Your task to perform on an android device: uninstall "Google News" Image 0: 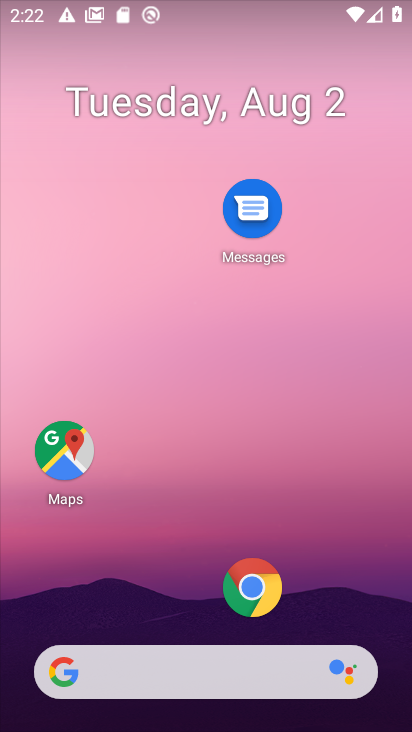
Step 0: drag from (189, 570) to (196, 188)
Your task to perform on an android device: uninstall "Google News" Image 1: 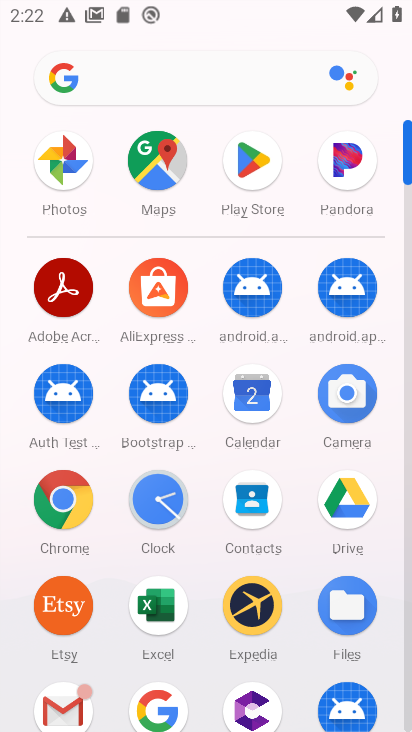
Step 1: click (244, 173)
Your task to perform on an android device: uninstall "Google News" Image 2: 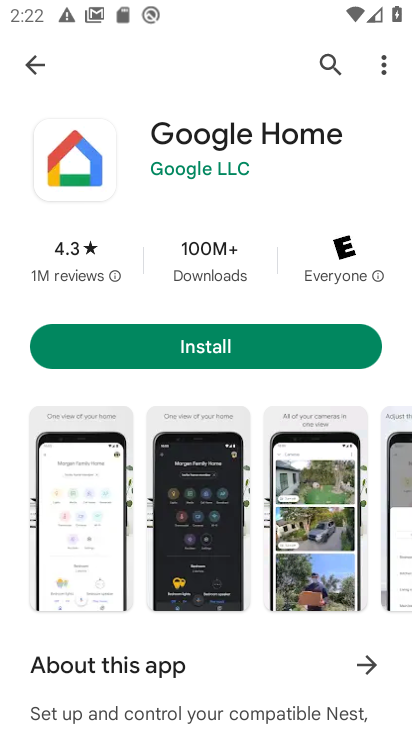
Step 2: click (334, 59)
Your task to perform on an android device: uninstall "Google News" Image 3: 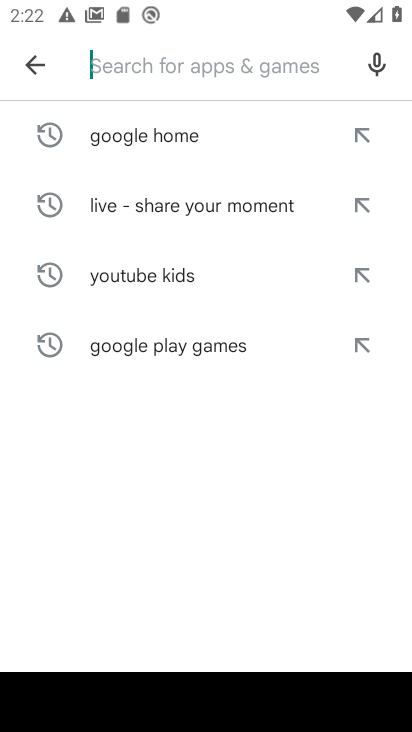
Step 3: type "Google News"
Your task to perform on an android device: uninstall "Google News" Image 4: 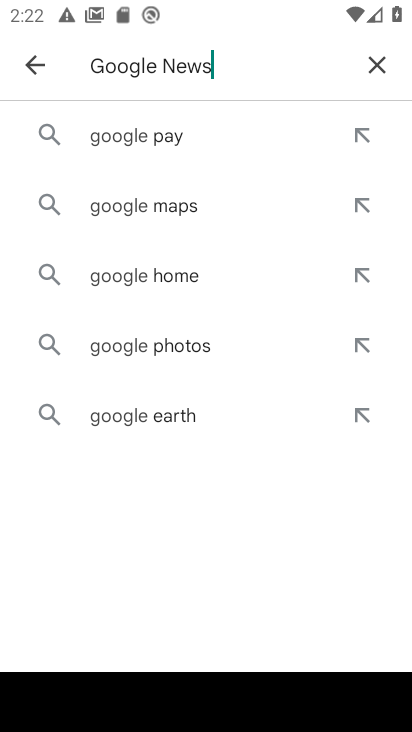
Step 4: type ""
Your task to perform on an android device: uninstall "Google News" Image 5: 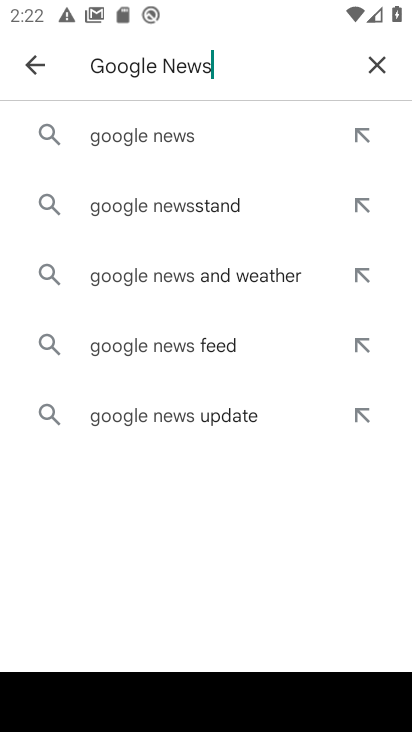
Step 5: click (146, 142)
Your task to perform on an android device: uninstall "Google News" Image 6: 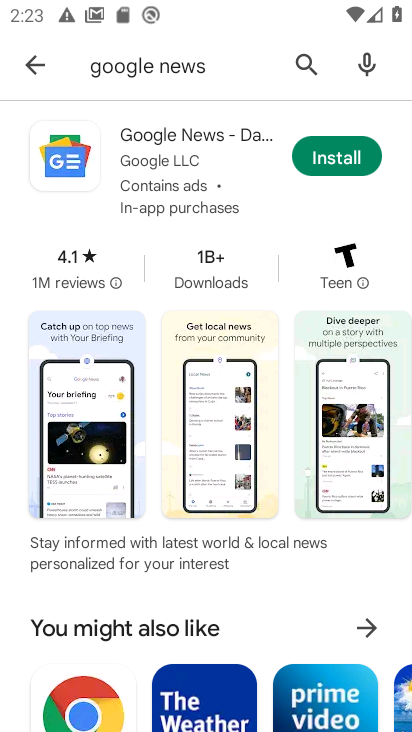
Step 6: task complete